Your task to perform on an android device: turn off javascript in the chrome app Image 0: 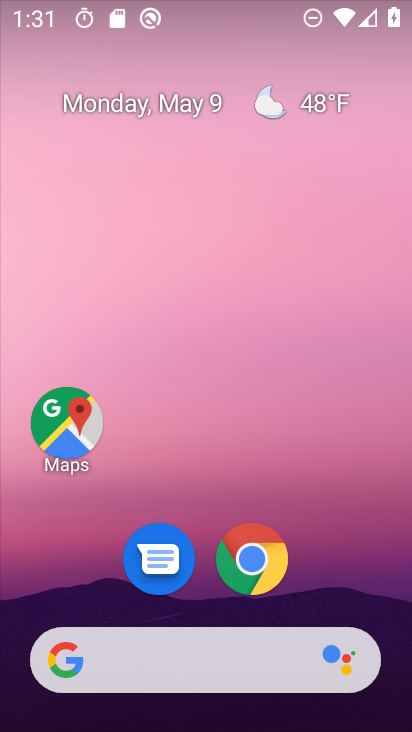
Step 0: click (288, 254)
Your task to perform on an android device: turn off javascript in the chrome app Image 1: 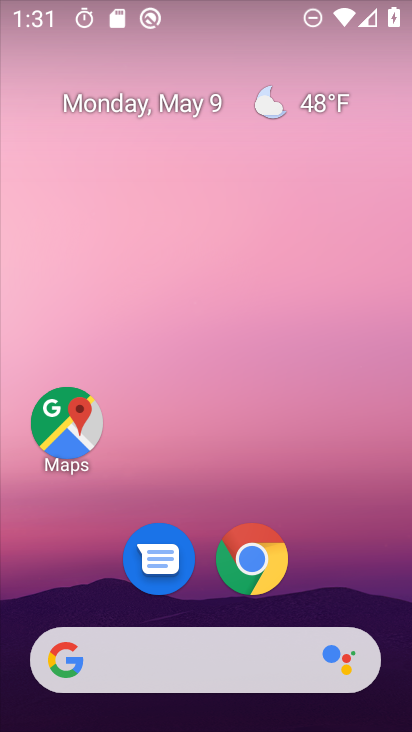
Step 1: drag from (199, 563) to (280, 226)
Your task to perform on an android device: turn off javascript in the chrome app Image 2: 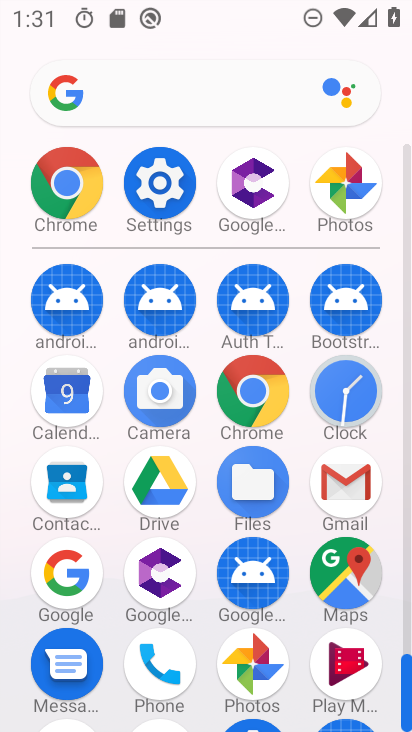
Step 2: click (252, 390)
Your task to perform on an android device: turn off javascript in the chrome app Image 3: 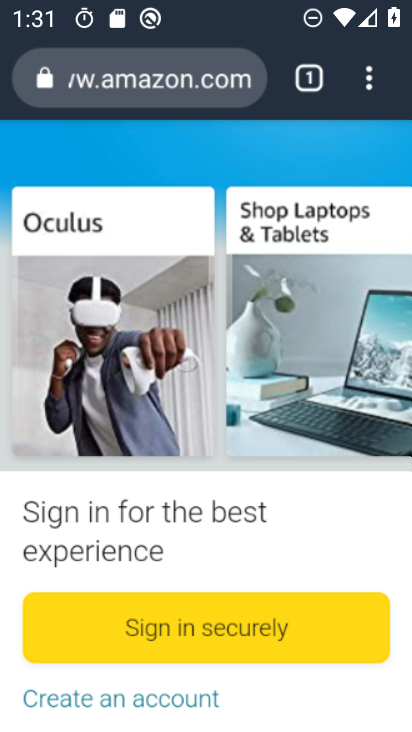
Step 3: drag from (201, 573) to (210, 354)
Your task to perform on an android device: turn off javascript in the chrome app Image 4: 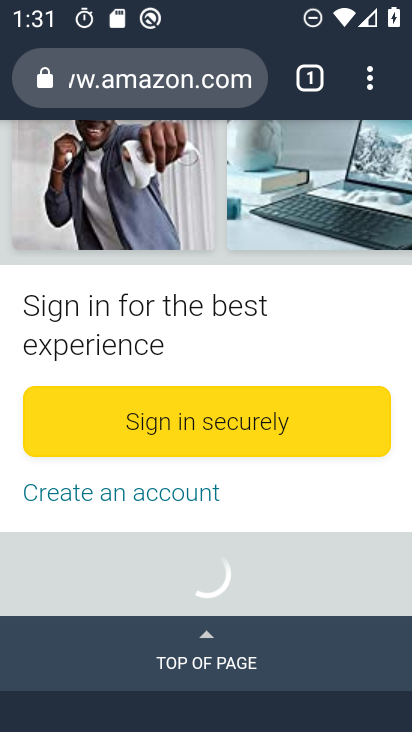
Step 4: drag from (210, 359) to (285, 674)
Your task to perform on an android device: turn off javascript in the chrome app Image 5: 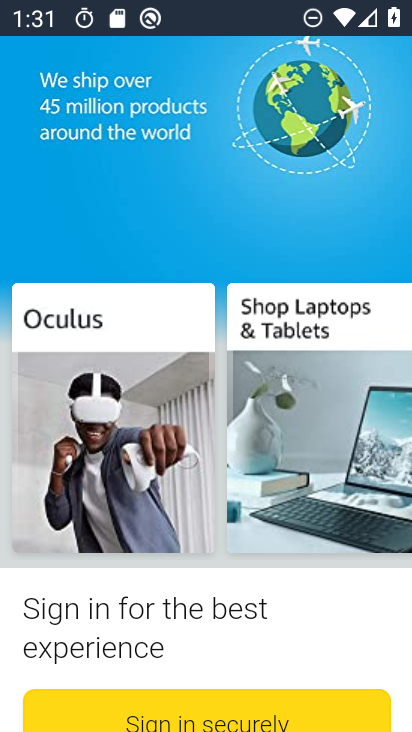
Step 5: drag from (373, 83) to (357, 417)
Your task to perform on an android device: turn off javascript in the chrome app Image 6: 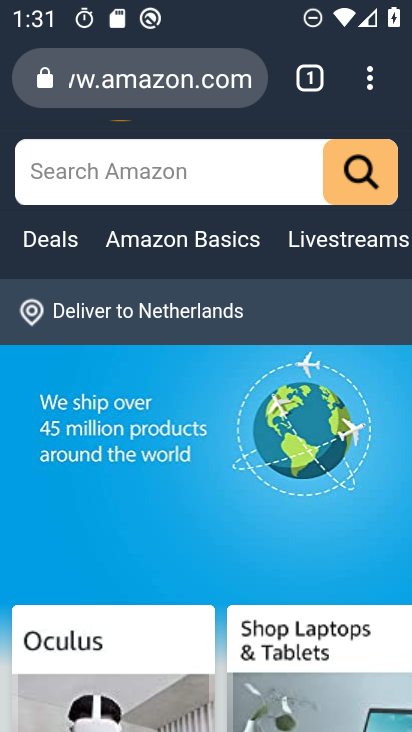
Step 6: click (370, 78)
Your task to perform on an android device: turn off javascript in the chrome app Image 7: 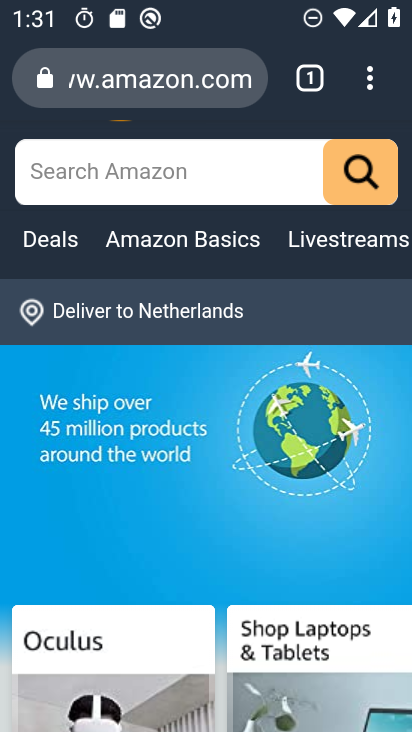
Step 7: drag from (363, 80) to (151, 620)
Your task to perform on an android device: turn off javascript in the chrome app Image 8: 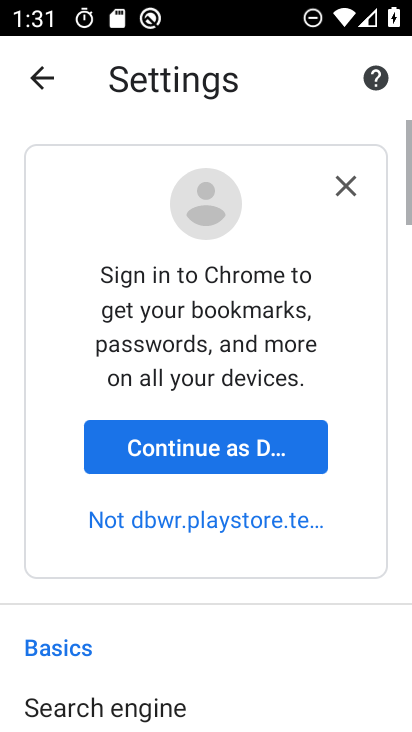
Step 8: drag from (178, 574) to (247, 164)
Your task to perform on an android device: turn off javascript in the chrome app Image 9: 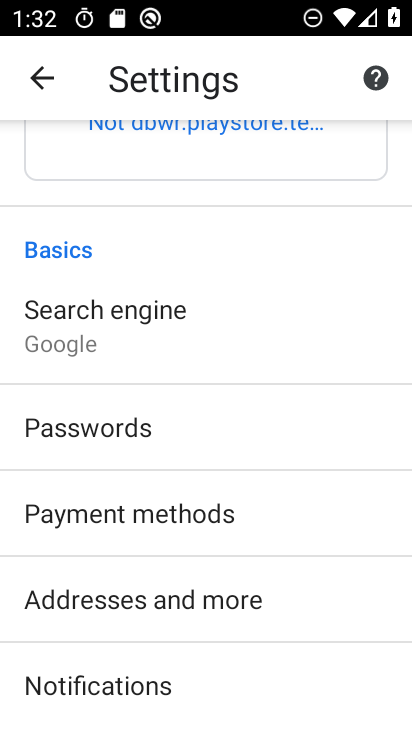
Step 9: drag from (217, 558) to (251, 212)
Your task to perform on an android device: turn off javascript in the chrome app Image 10: 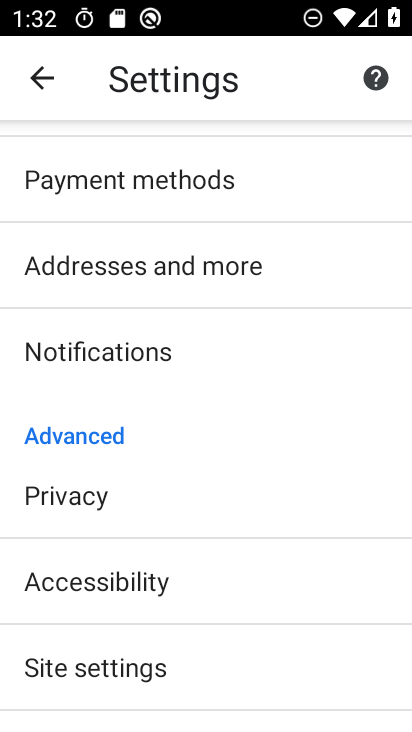
Step 10: drag from (165, 659) to (240, 244)
Your task to perform on an android device: turn off javascript in the chrome app Image 11: 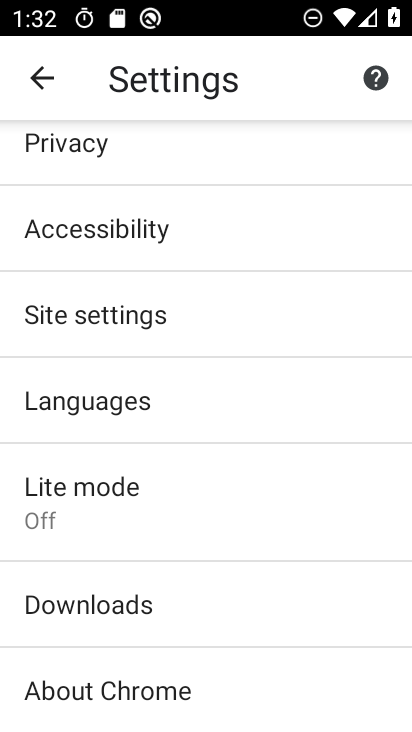
Step 11: click (197, 310)
Your task to perform on an android device: turn off javascript in the chrome app Image 12: 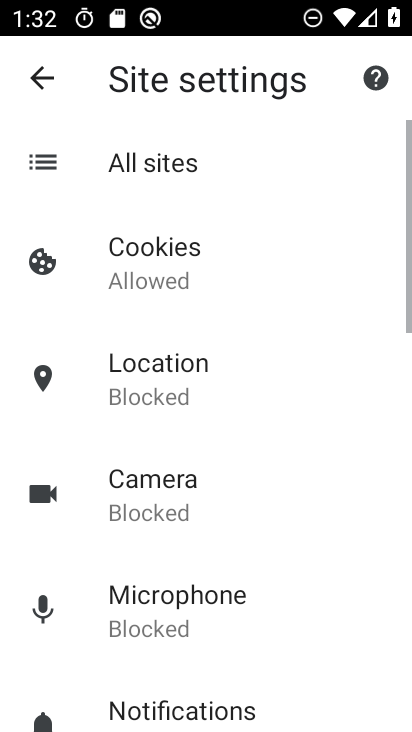
Step 12: drag from (203, 456) to (273, 230)
Your task to perform on an android device: turn off javascript in the chrome app Image 13: 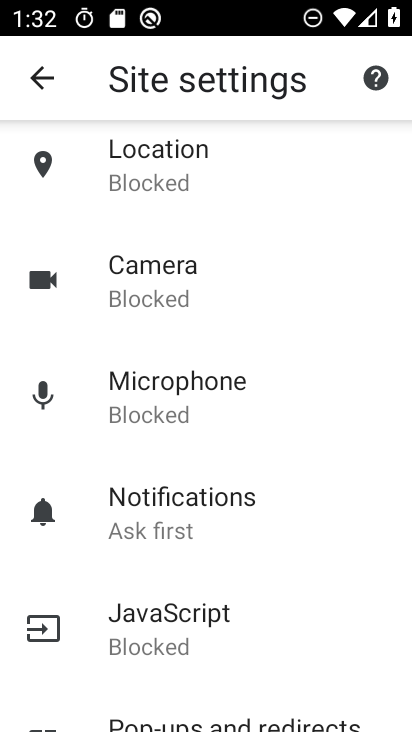
Step 13: click (198, 625)
Your task to perform on an android device: turn off javascript in the chrome app Image 14: 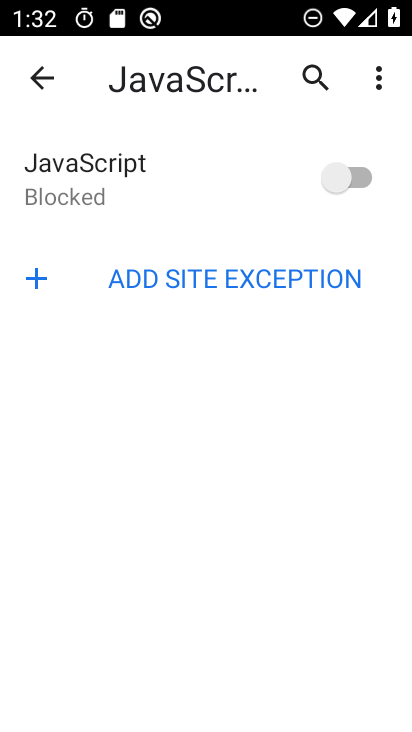
Step 14: task complete